Your task to perform on an android device: turn on translation in the chrome app Image 0: 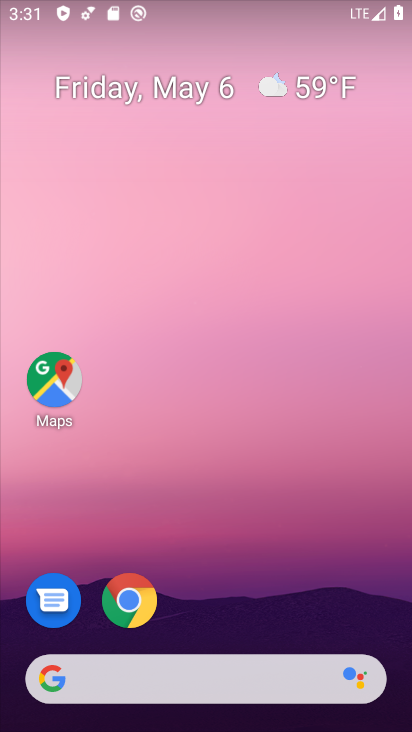
Step 0: drag from (221, 625) to (247, 113)
Your task to perform on an android device: turn on translation in the chrome app Image 1: 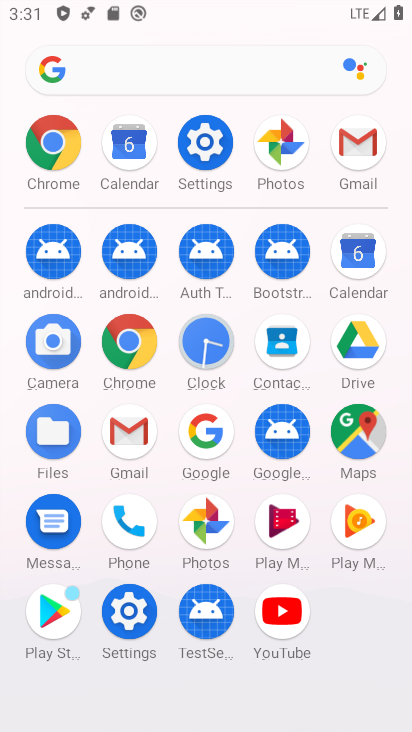
Step 1: click (136, 357)
Your task to perform on an android device: turn on translation in the chrome app Image 2: 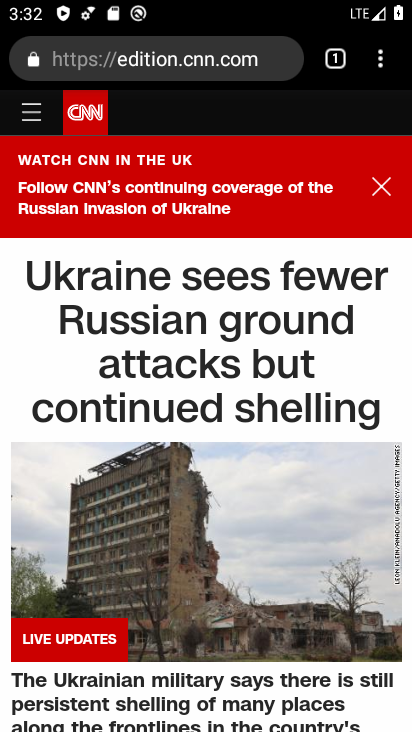
Step 2: click (375, 61)
Your task to perform on an android device: turn on translation in the chrome app Image 3: 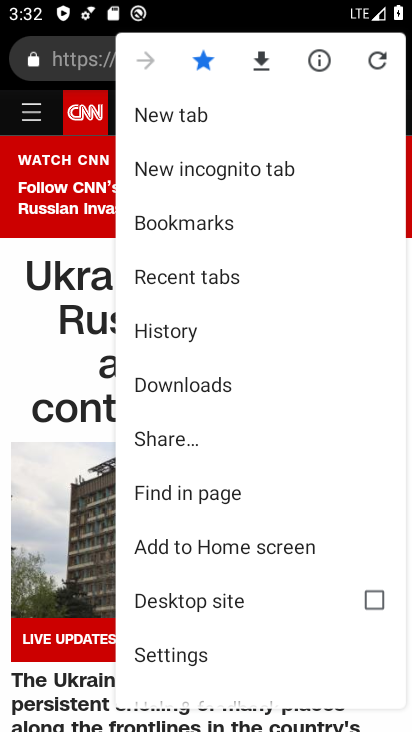
Step 3: drag from (212, 607) to (236, 370)
Your task to perform on an android device: turn on translation in the chrome app Image 4: 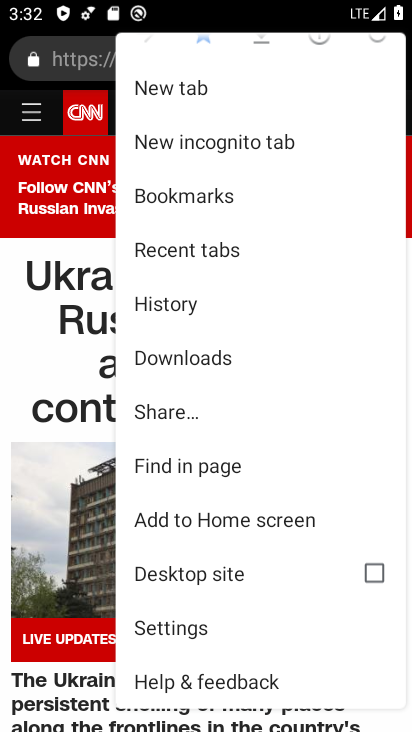
Step 4: click (169, 628)
Your task to perform on an android device: turn on translation in the chrome app Image 5: 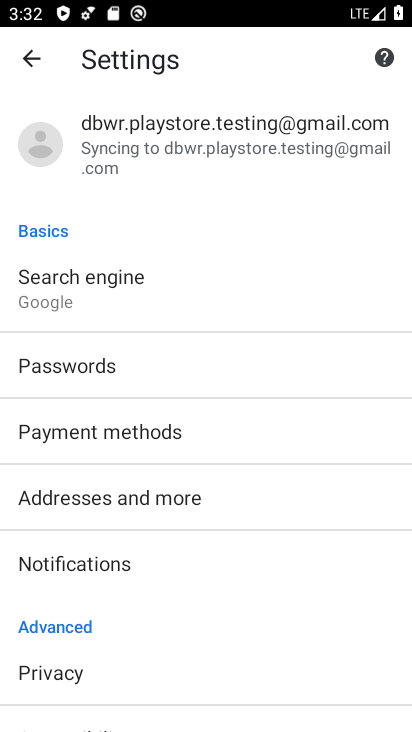
Step 5: drag from (136, 564) to (151, 175)
Your task to perform on an android device: turn on translation in the chrome app Image 6: 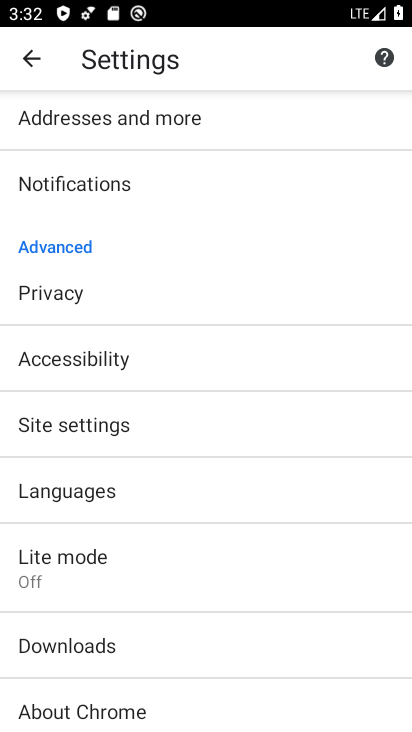
Step 6: click (86, 529)
Your task to perform on an android device: turn on translation in the chrome app Image 7: 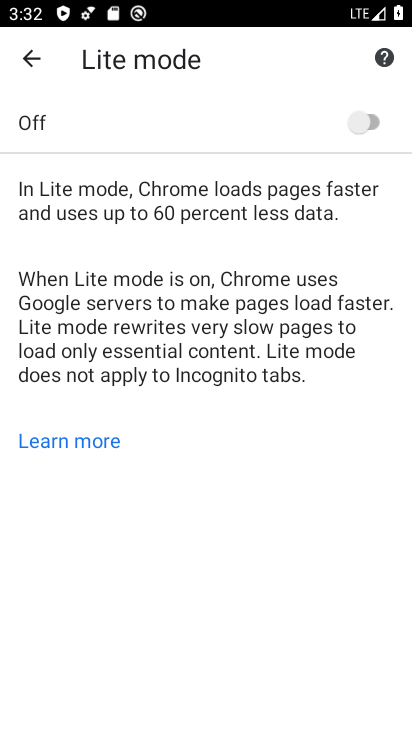
Step 7: click (42, 58)
Your task to perform on an android device: turn on translation in the chrome app Image 8: 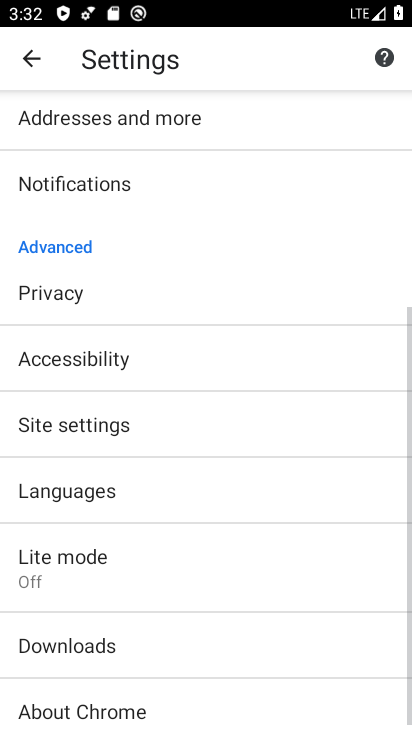
Step 8: click (108, 501)
Your task to perform on an android device: turn on translation in the chrome app Image 9: 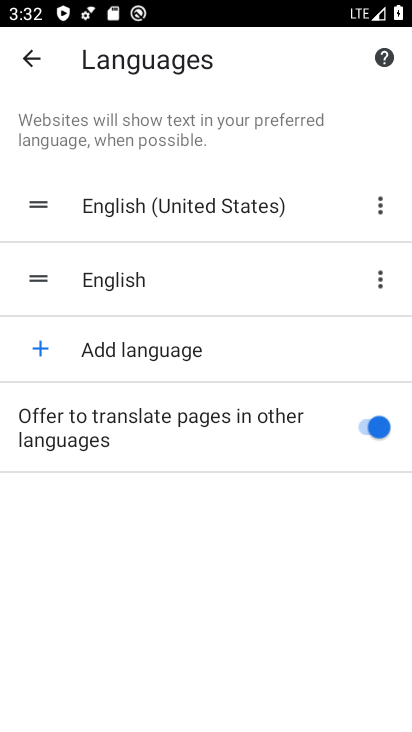
Step 9: task complete